Your task to perform on an android device: turn on the 24-hour format for clock Image 0: 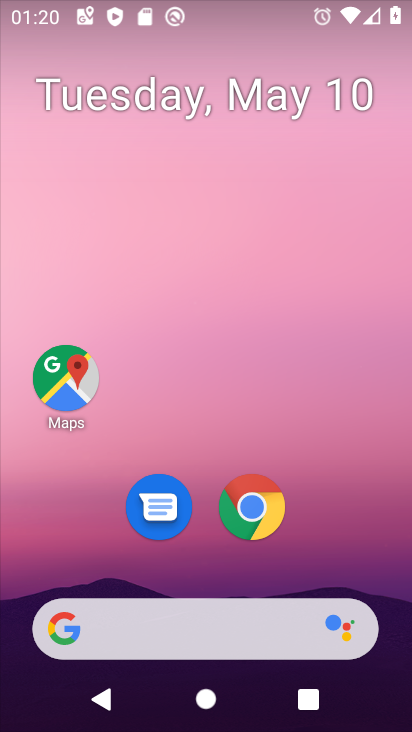
Step 0: drag from (257, 590) to (231, 171)
Your task to perform on an android device: turn on the 24-hour format for clock Image 1: 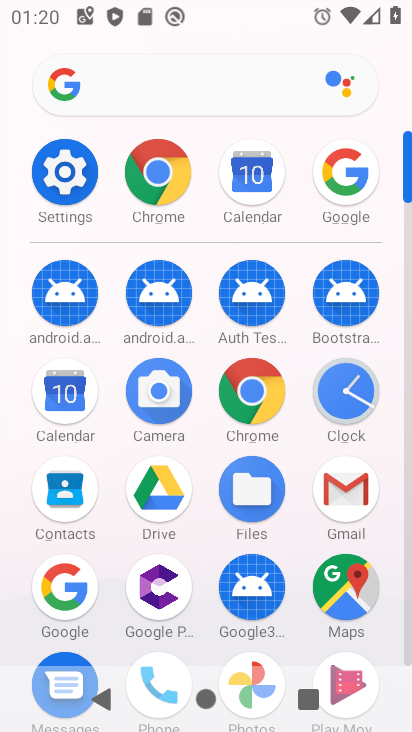
Step 1: click (359, 389)
Your task to perform on an android device: turn on the 24-hour format for clock Image 2: 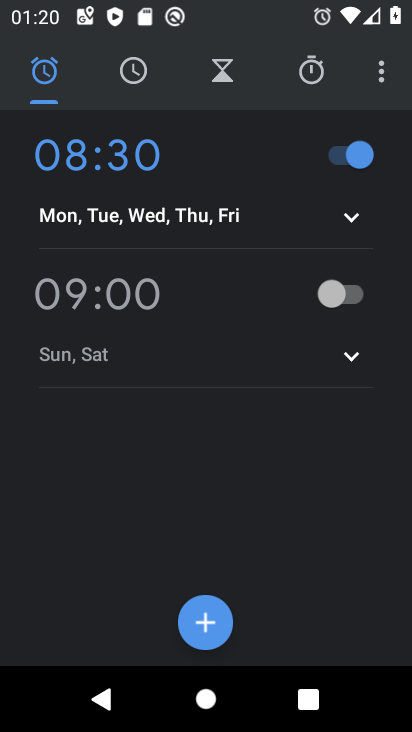
Step 2: click (377, 67)
Your task to perform on an android device: turn on the 24-hour format for clock Image 3: 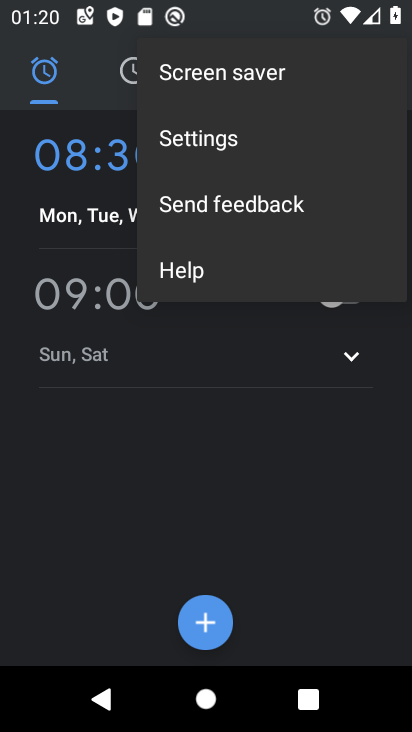
Step 3: click (196, 141)
Your task to perform on an android device: turn on the 24-hour format for clock Image 4: 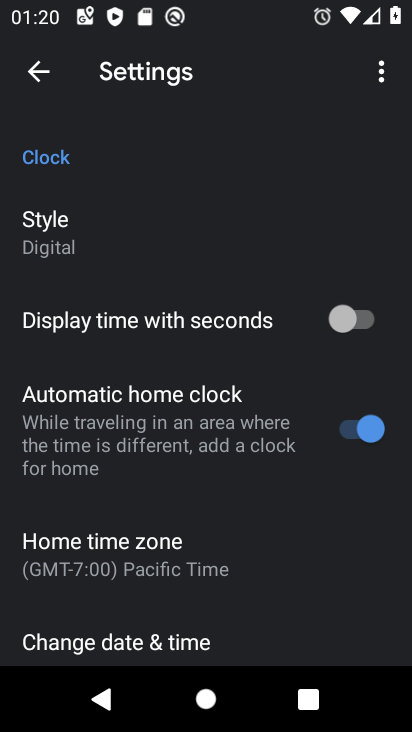
Step 4: click (110, 637)
Your task to perform on an android device: turn on the 24-hour format for clock Image 5: 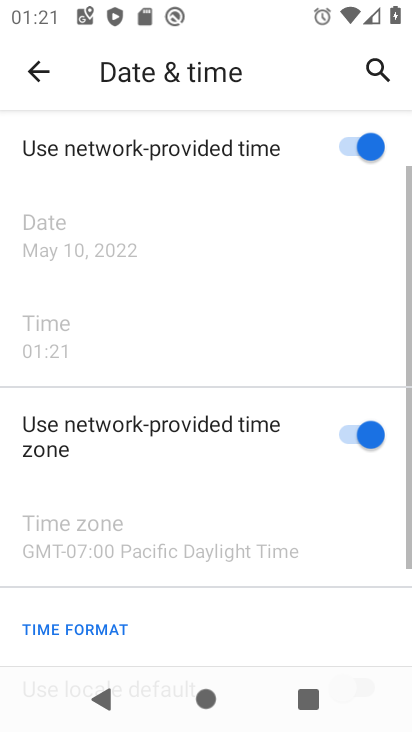
Step 5: task complete